Your task to perform on an android device: show emergency info Image 0: 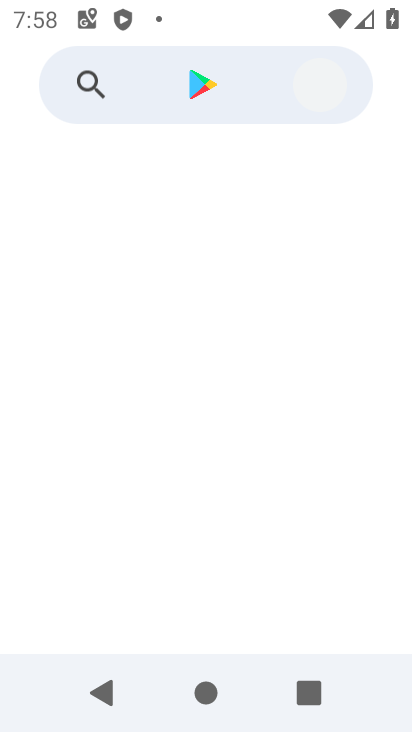
Step 0: press home button
Your task to perform on an android device: show emergency info Image 1: 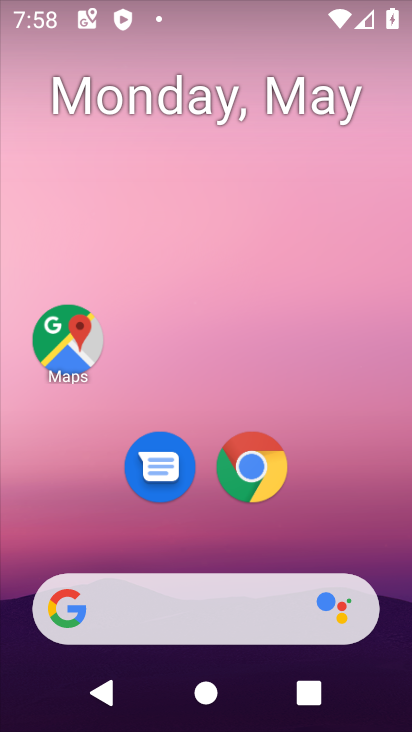
Step 1: drag from (337, 542) to (201, 51)
Your task to perform on an android device: show emergency info Image 2: 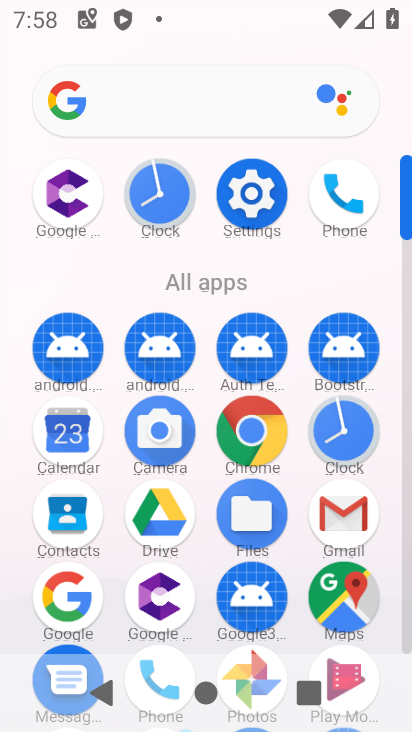
Step 2: click (256, 187)
Your task to perform on an android device: show emergency info Image 3: 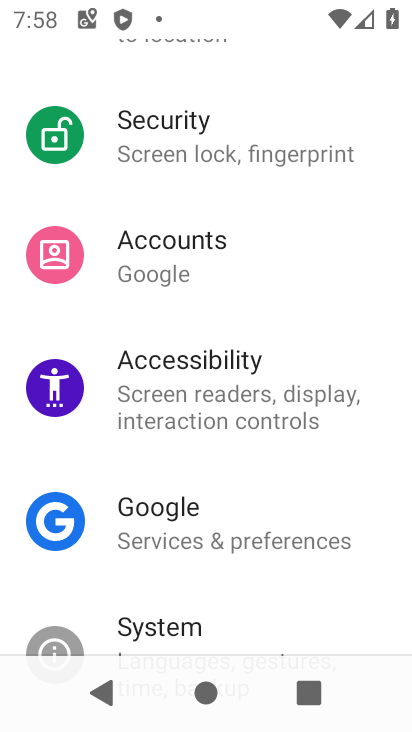
Step 3: drag from (234, 614) to (234, 241)
Your task to perform on an android device: show emergency info Image 4: 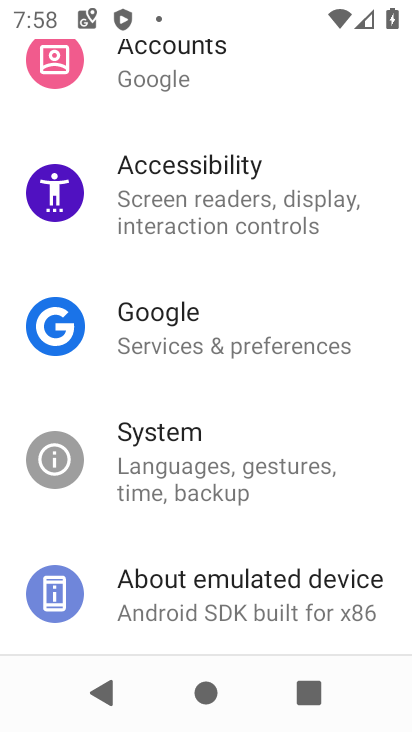
Step 4: click (222, 598)
Your task to perform on an android device: show emergency info Image 5: 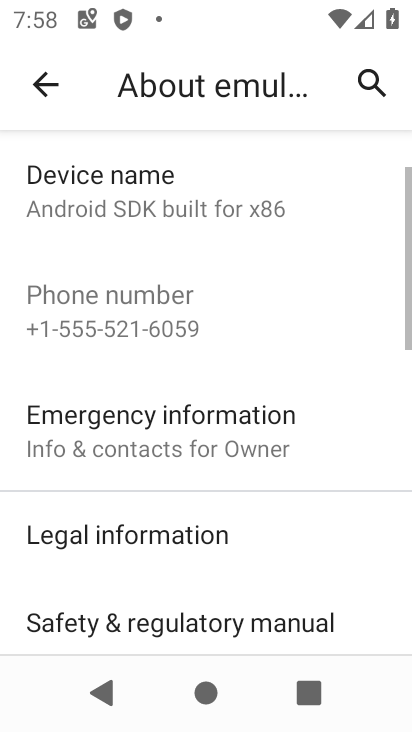
Step 5: click (199, 434)
Your task to perform on an android device: show emergency info Image 6: 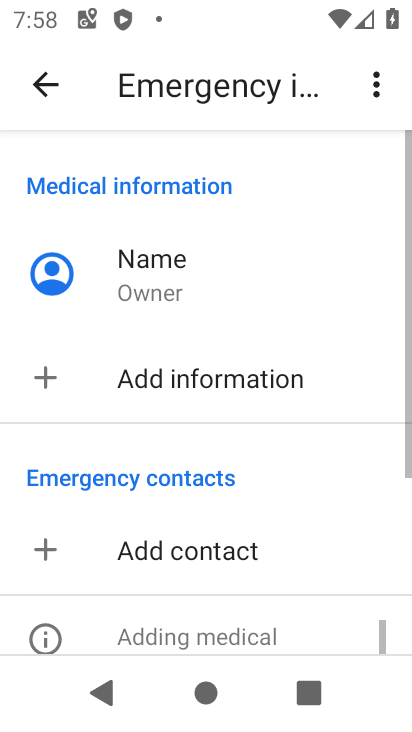
Step 6: task complete